Your task to perform on an android device: Go to wifi settings Image 0: 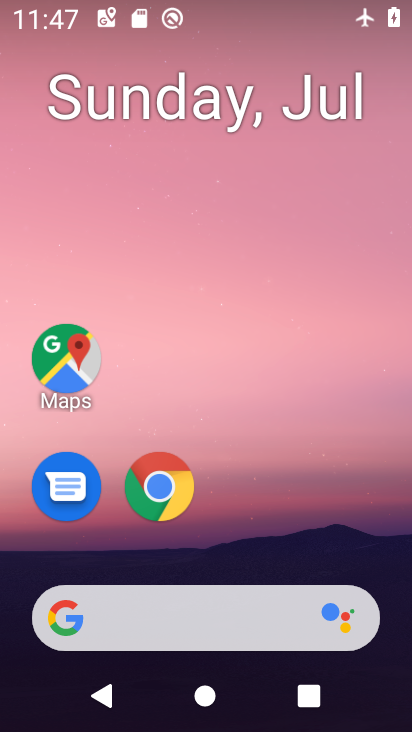
Step 0: press home button
Your task to perform on an android device: Go to wifi settings Image 1: 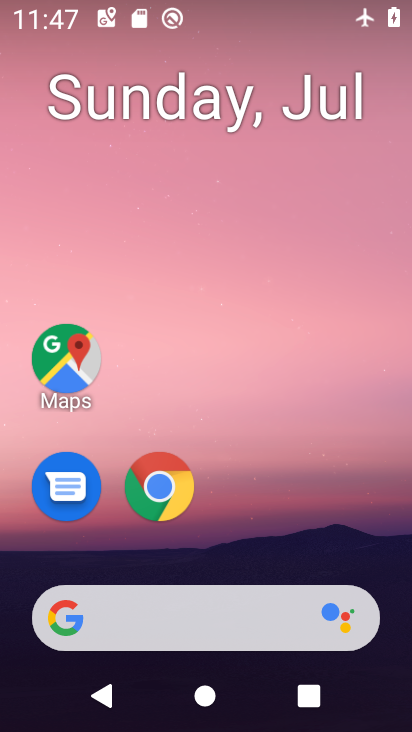
Step 1: drag from (328, 524) to (312, 60)
Your task to perform on an android device: Go to wifi settings Image 2: 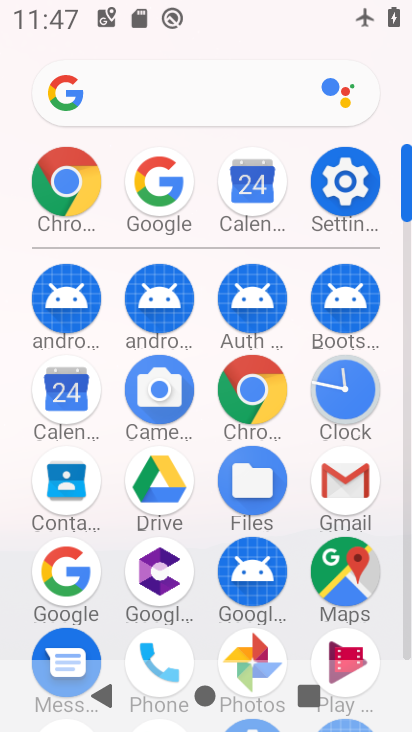
Step 2: click (340, 187)
Your task to perform on an android device: Go to wifi settings Image 3: 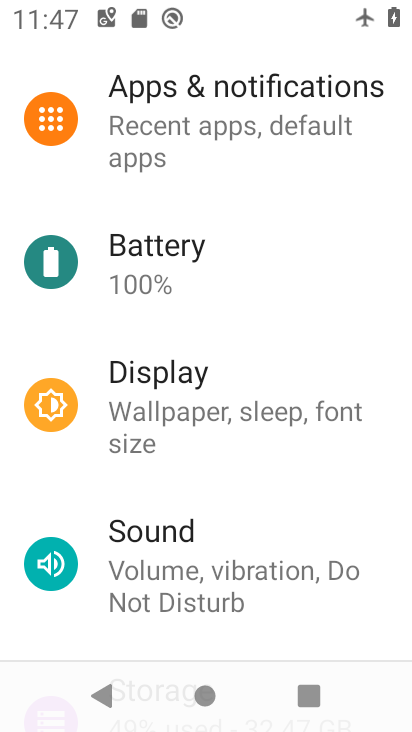
Step 3: drag from (340, 187) to (333, 296)
Your task to perform on an android device: Go to wifi settings Image 4: 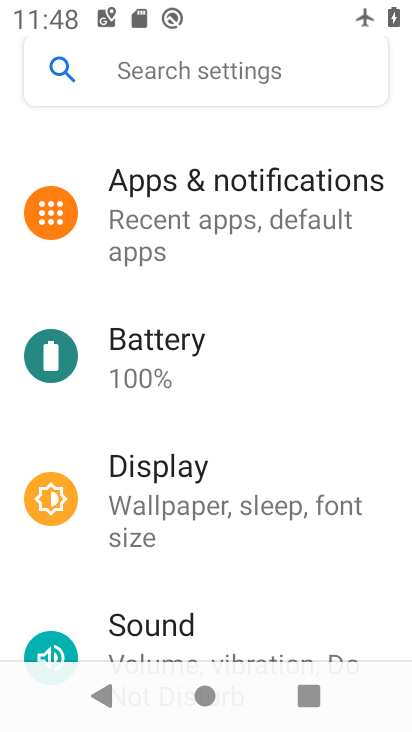
Step 4: drag from (346, 259) to (340, 410)
Your task to perform on an android device: Go to wifi settings Image 5: 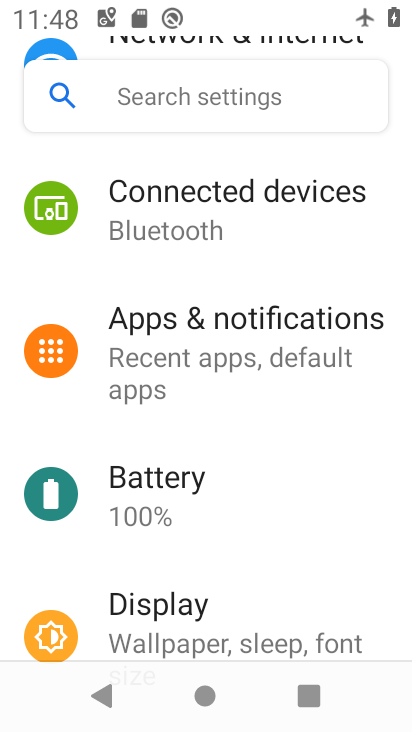
Step 5: drag from (330, 234) to (326, 367)
Your task to perform on an android device: Go to wifi settings Image 6: 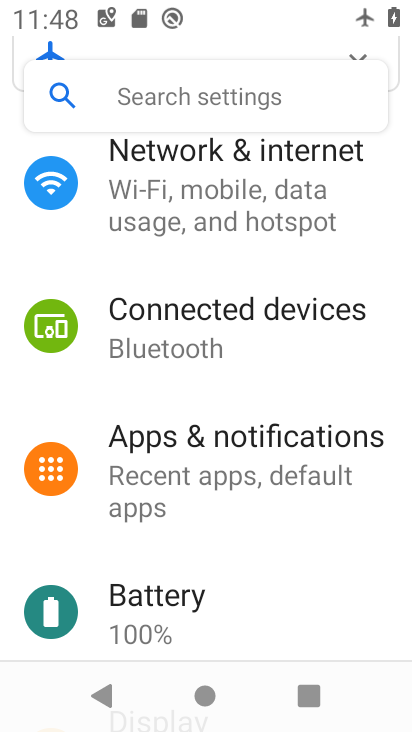
Step 6: drag from (362, 221) to (341, 379)
Your task to perform on an android device: Go to wifi settings Image 7: 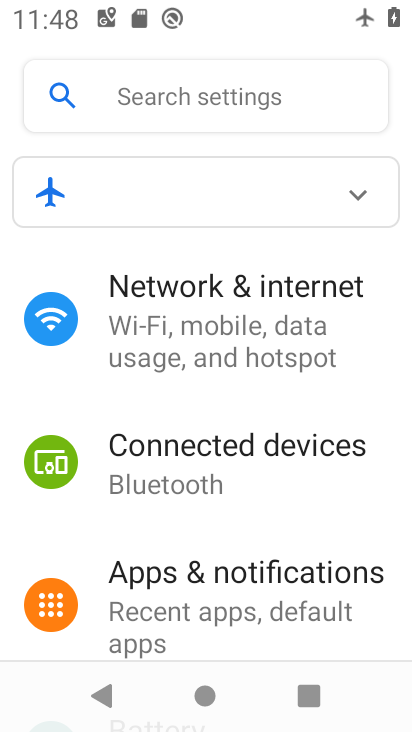
Step 7: drag from (337, 240) to (338, 425)
Your task to perform on an android device: Go to wifi settings Image 8: 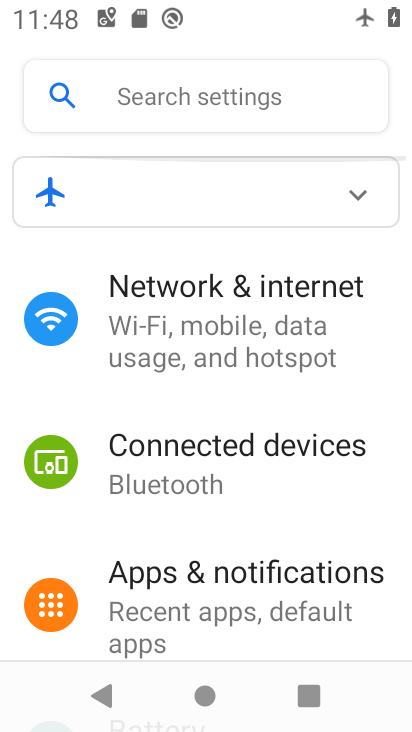
Step 8: click (285, 303)
Your task to perform on an android device: Go to wifi settings Image 9: 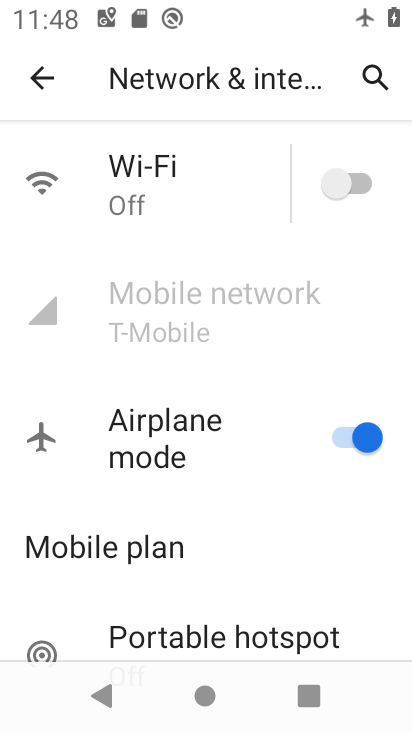
Step 9: drag from (255, 485) to (259, 334)
Your task to perform on an android device: Go to wifi settings Image 10: 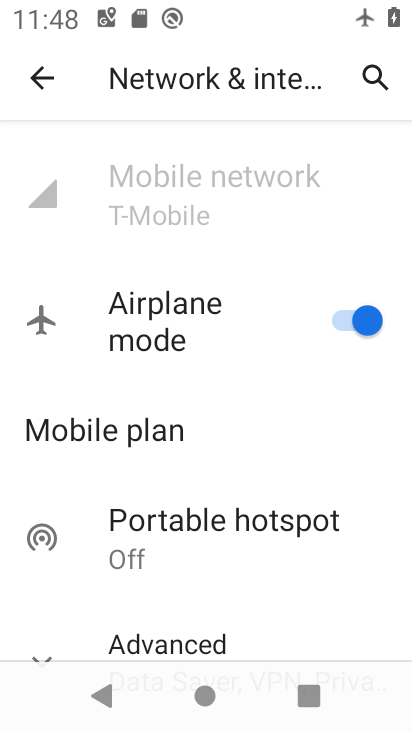
Step 10: drag from (263, 478) to (265, 356)
Your task to perform on an android device: Go to wifi settings Image 11: 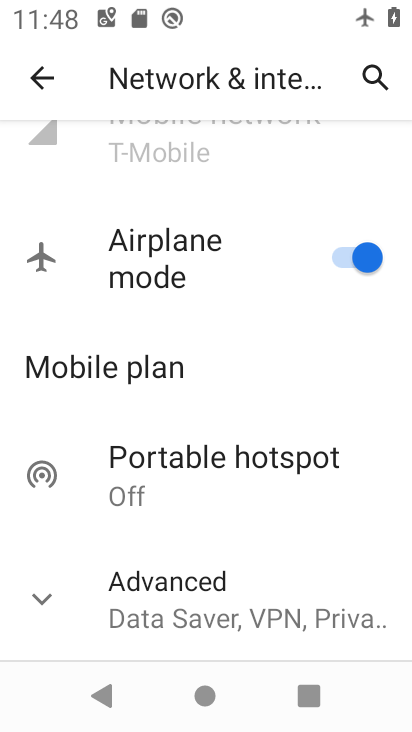
Step 11: drag from (265, 293) to (265, 415)
Your task to perform on an android device: Go to wifi settings Image 12: 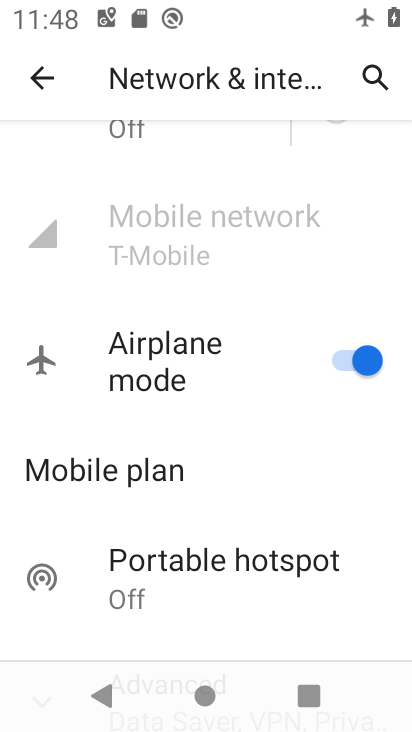
Step 12: drag from (261, 176) to (257, 416)
Your task to perform on an android device: Go to wifi settings Image 13: 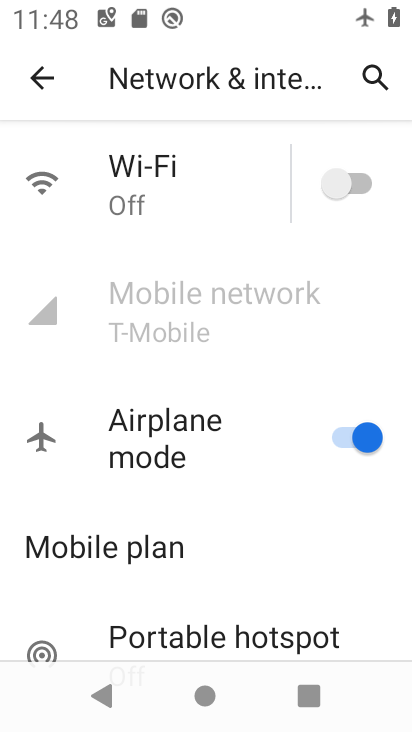
Step 13: click (184, 176)
Your task to perform on an android device: Go to wifi settings Image 14: 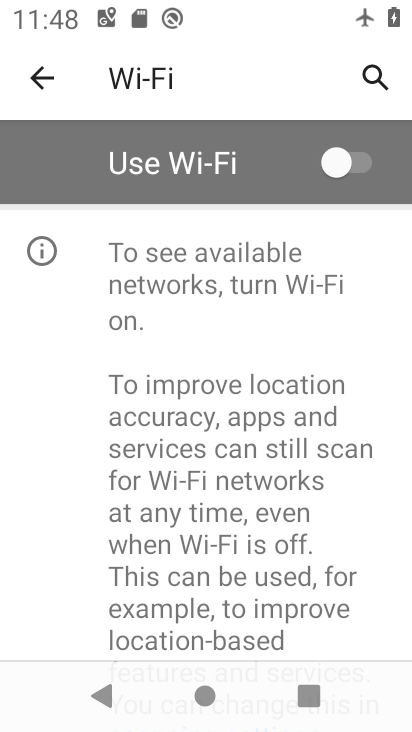
Step 14: task complete